Your task to perform on an android device: Clear the shopping cart on costco.com. Add razer huntsman to the cart on costco.com Image 0: 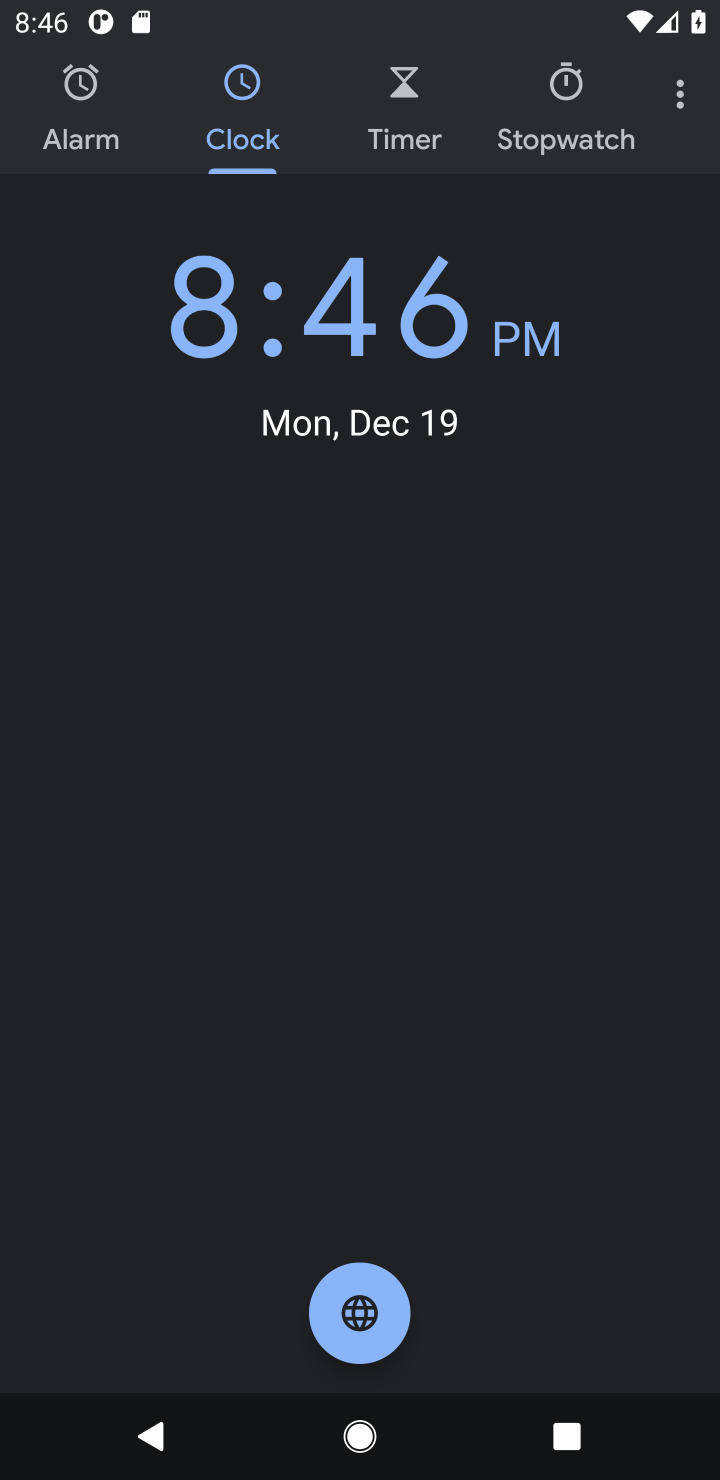
Step 0: press home button
Your task to perform on an android device: Clear the shopping cart on costco.com. Add razer huntsman to the cart on costco.com Image 1: 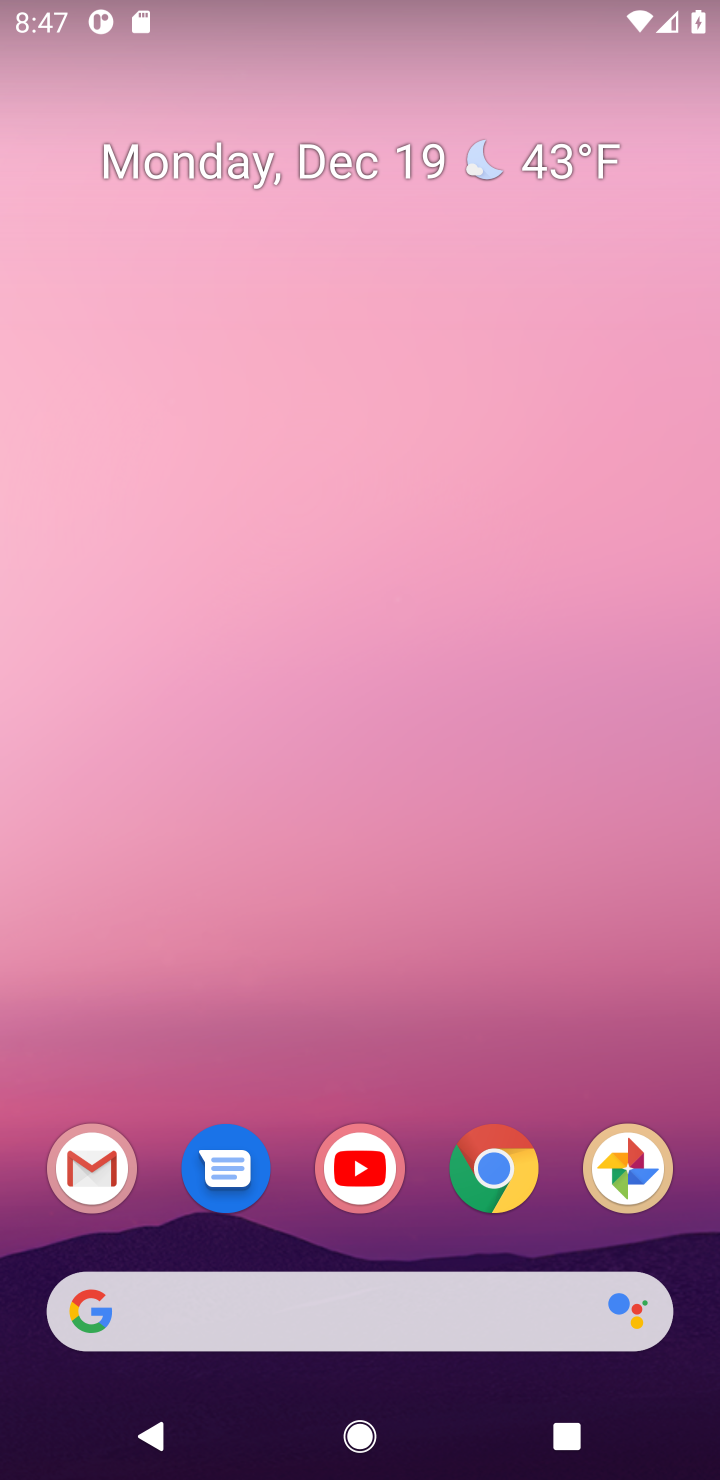
Step 1: click (494, 1171)
Your task to perform on an android device: Clear the shopping cart on costco.com. Add razer huntsman to the cart on costco.com Image 2: 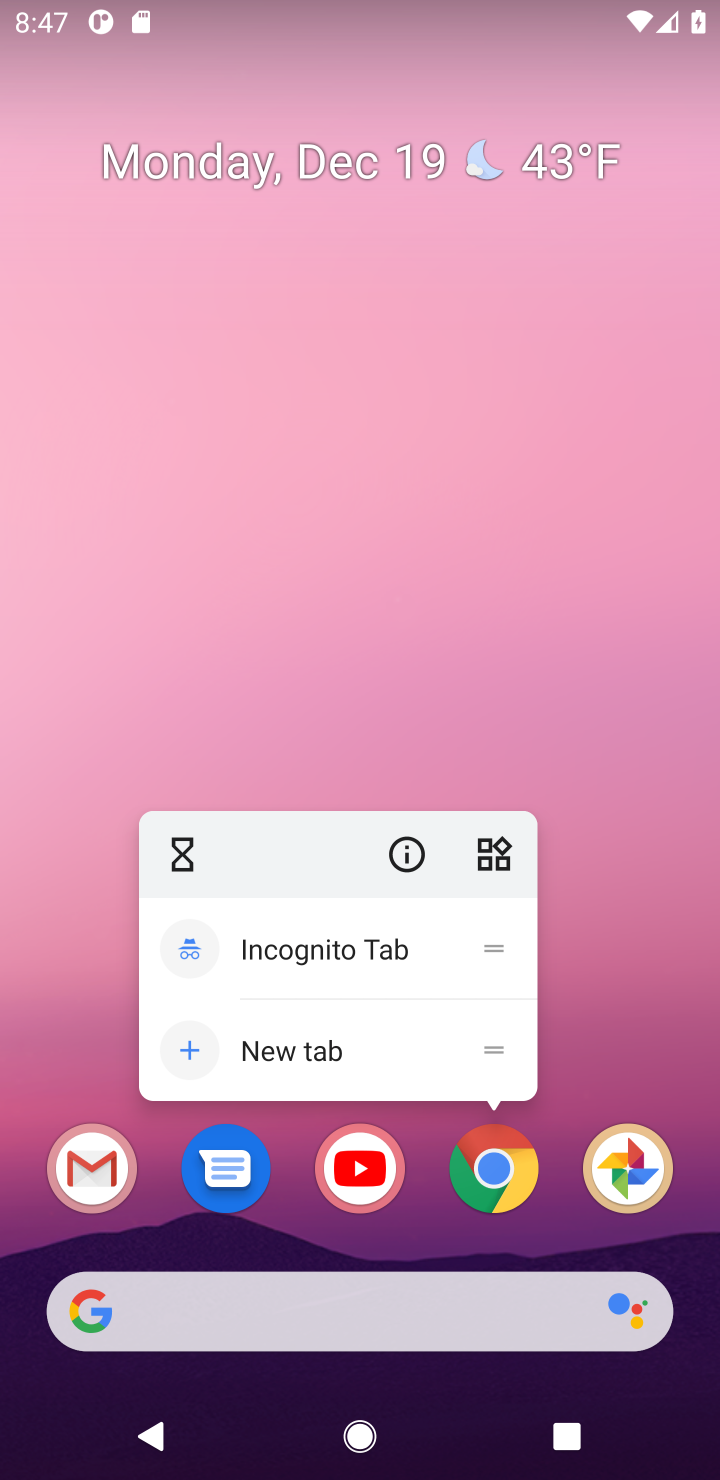
Step 2: click (494, 1171)
Your task to perform on an android device: Clear the shopping cart on costco.com. Add razer huntsman to the cart on costco.com Image 3: 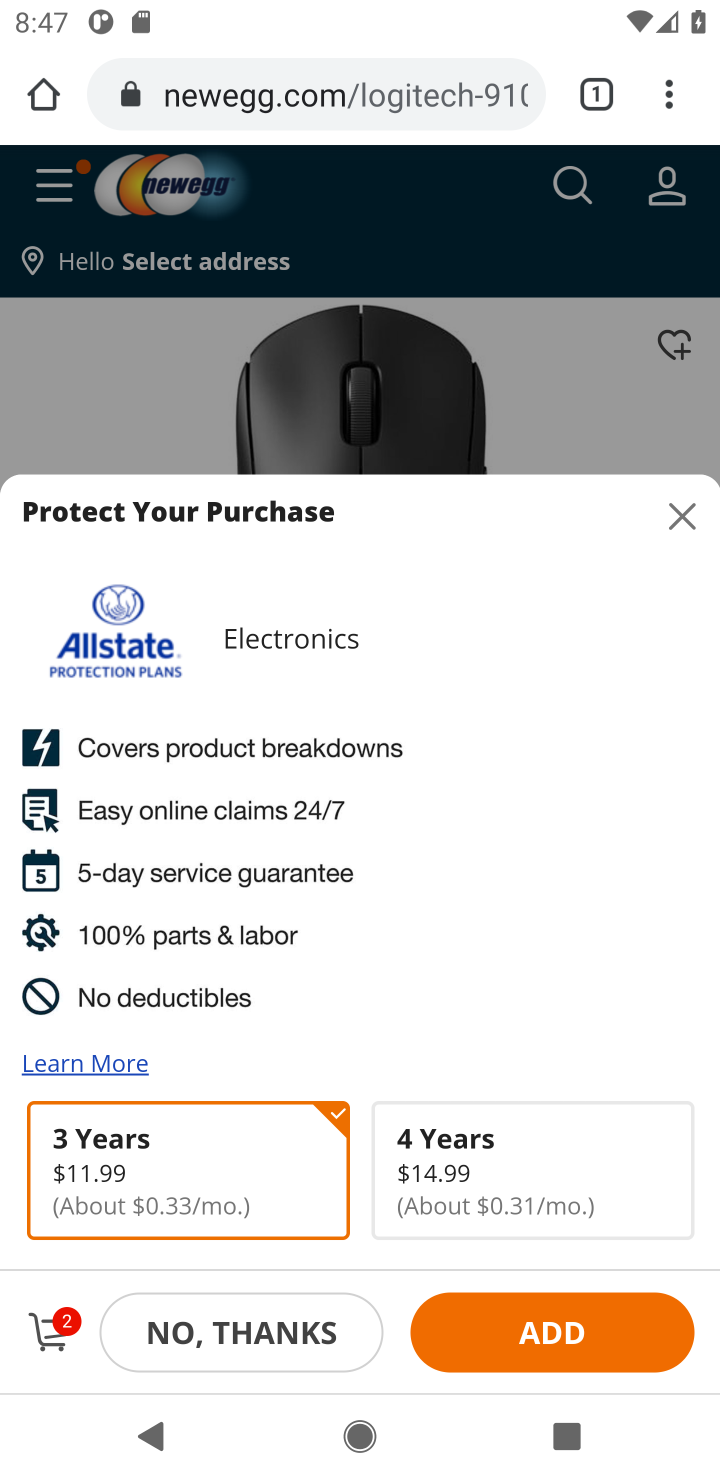
Step 3: click (276, 90)
Your task to perform on an android device: Clear the shopping cart on costco.com. Add razer huntsman to the cart on costco.com Image 4: 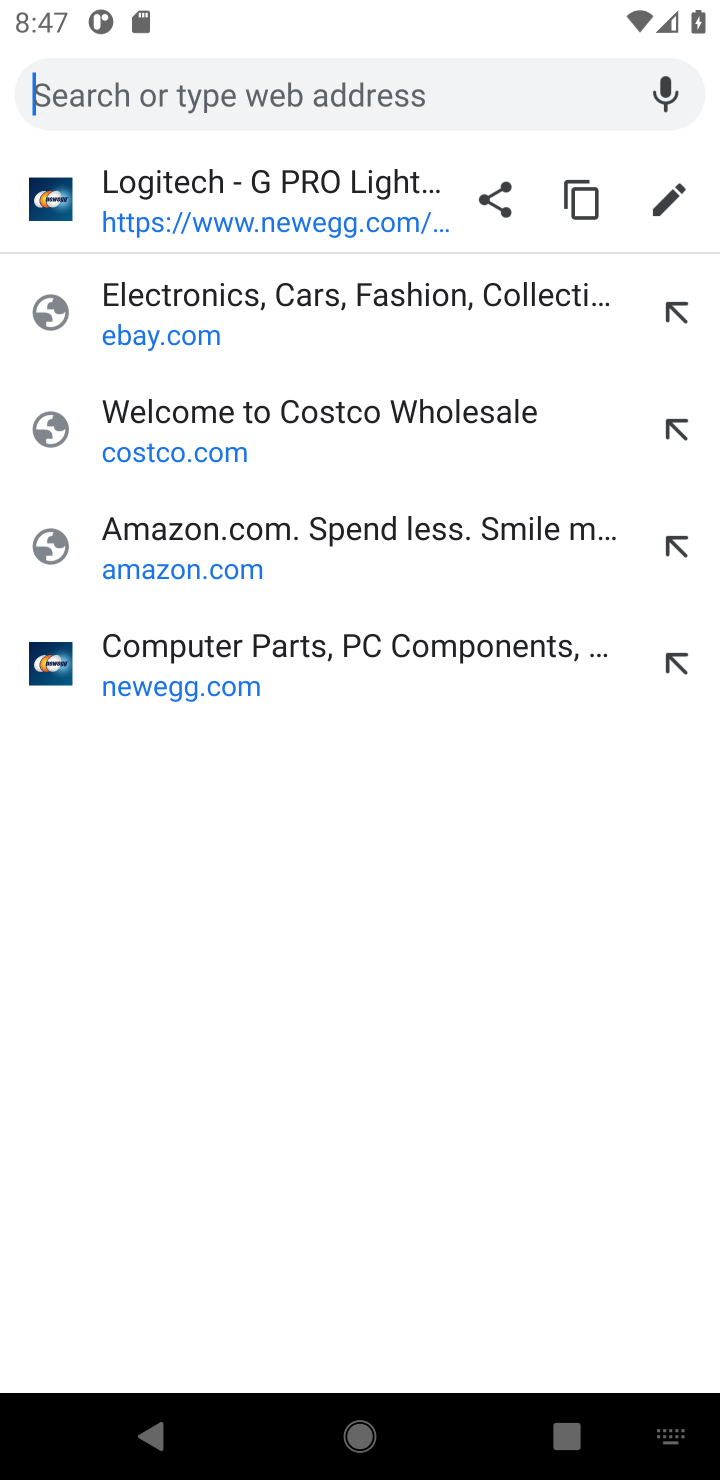
Step 4: click (131, 424)
Your task to perform on an android device: Clear the shopping cart on costco.com. Add razer huntsman to the cart on costco.com Image 5: 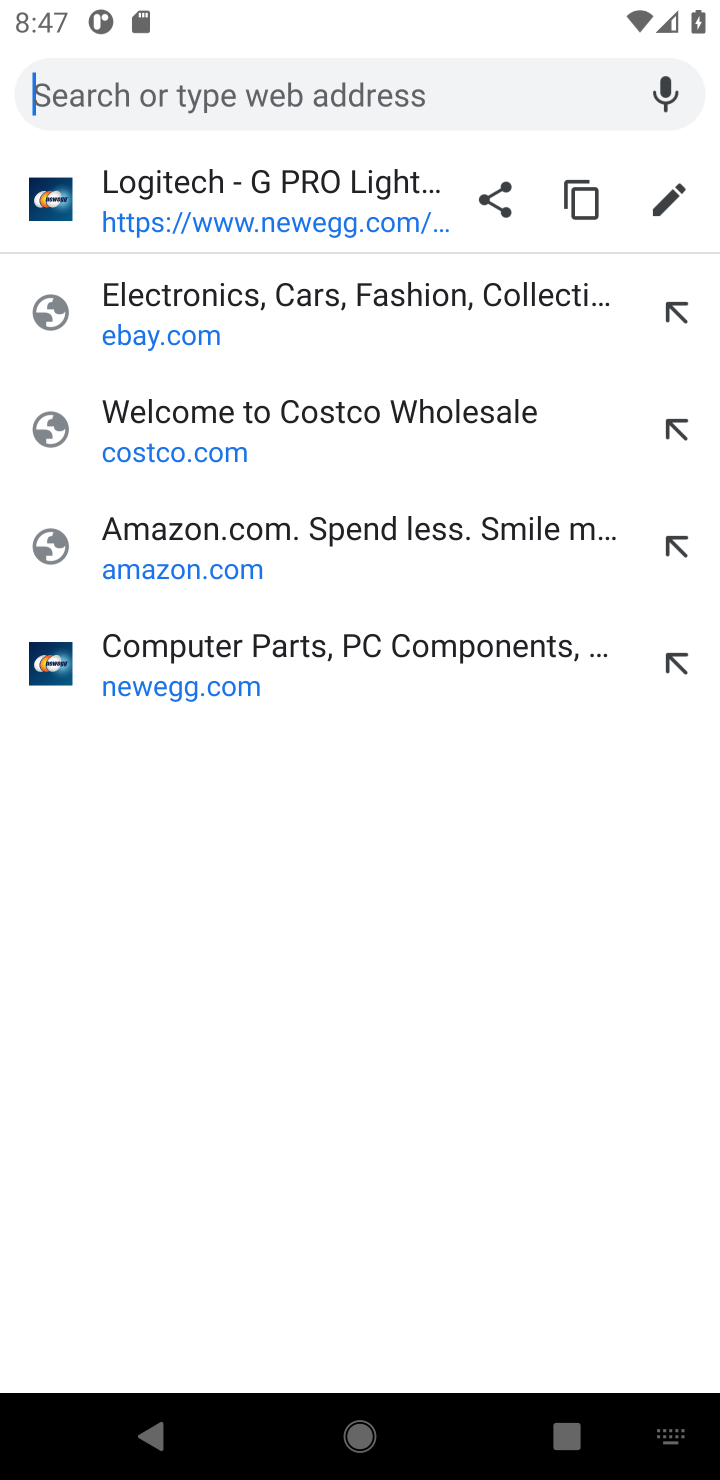
Step 5: click (131, 424)
Your task to perform on an android device: Clear the shopping cart on costco.com. Add razer huntsman to the cart on costco.com Image 6: 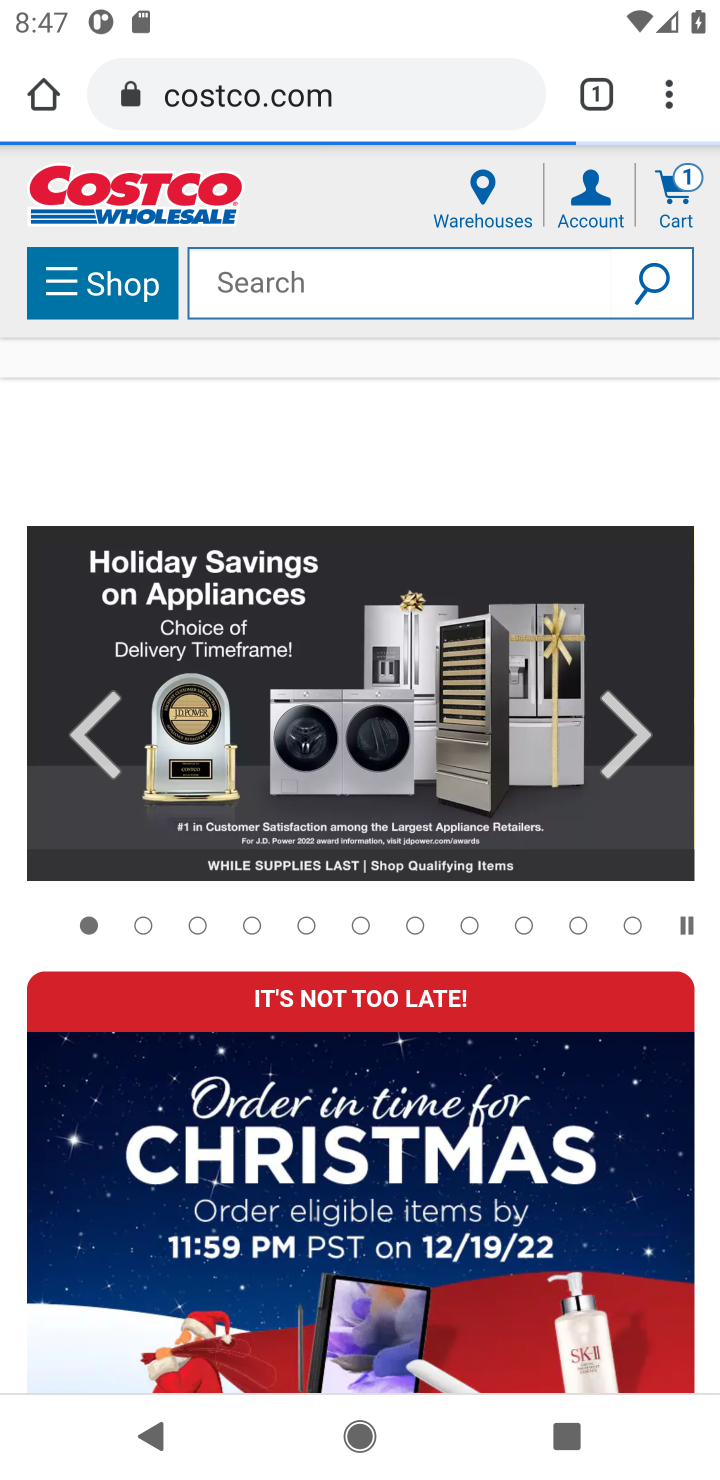
Step 6: click (684, 210)
Your task to perform on an android device: Clear the shopping cart on costco.com. Add razer huntsman to the cart on costco.com Image 7: 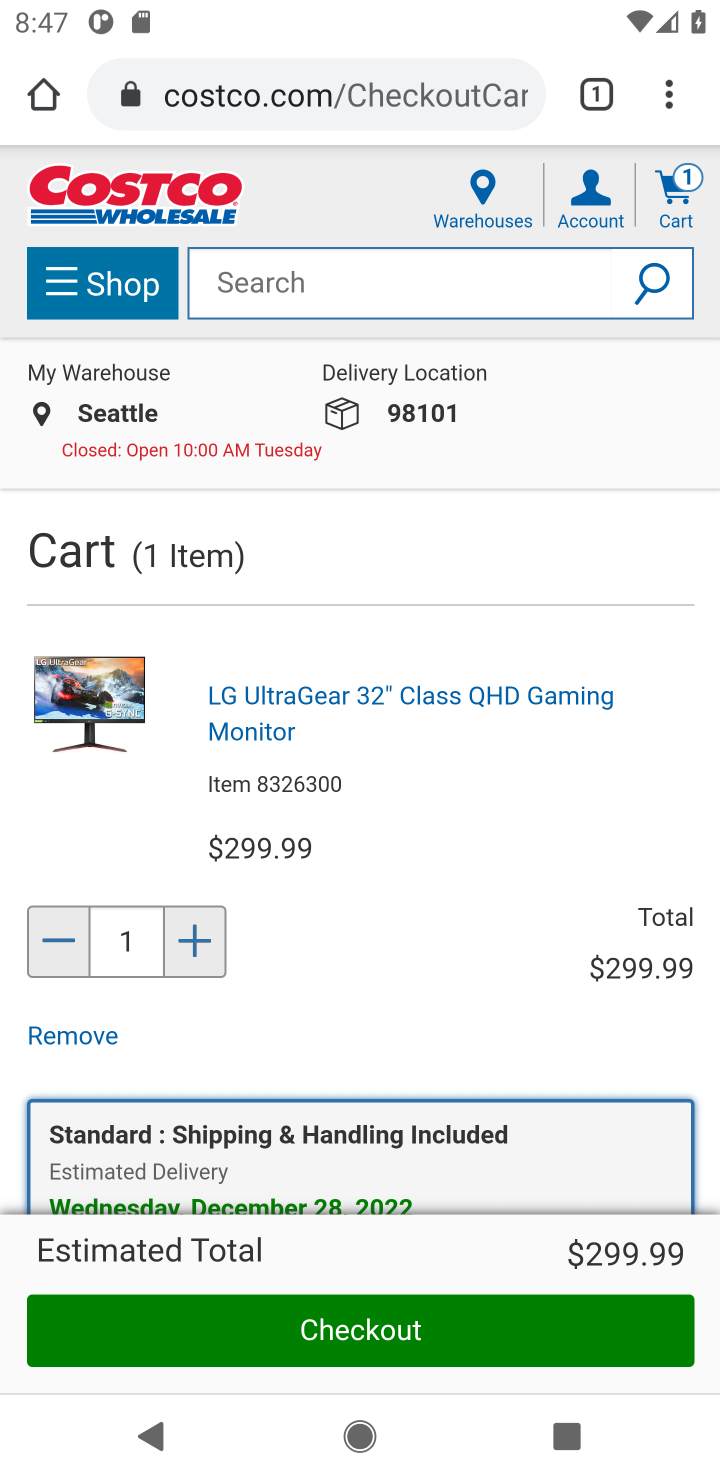
Step 7: drag from (445, 835) to (424, 395)
Your task to perform on an android device: Clear the shopping cart on costco.com. Add razer huntsman to the cart on costco.com Image 8: 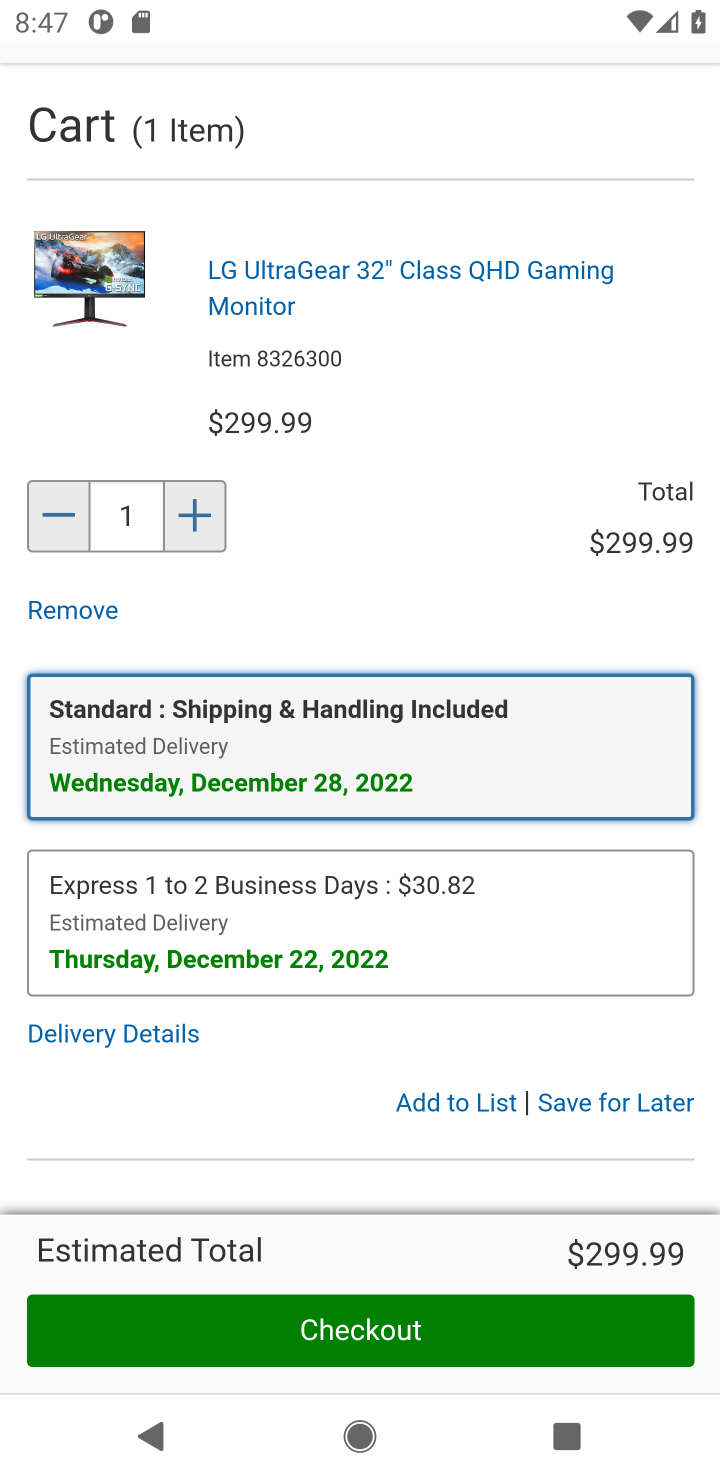
Step 8: click (601, 1102)
Your task to perform on an android device: Clear the shopping cart on costco.com. Add razer huntsman to the cart on costco.com Image 9: 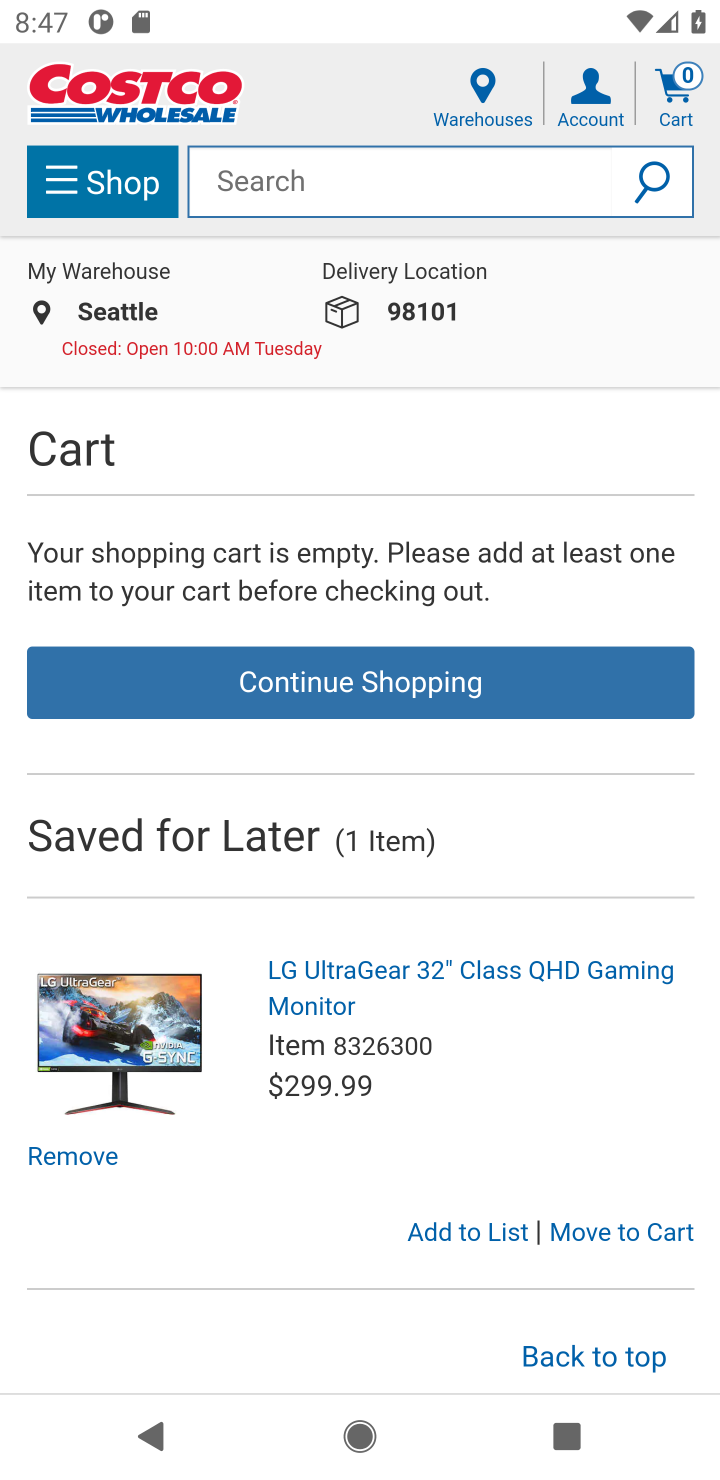
Step 9: click (279, 189)
Your task to perform on an android device: Clear the shopping cart on costco.com. Add razer huntsman to the cart on costco.com Image 10: 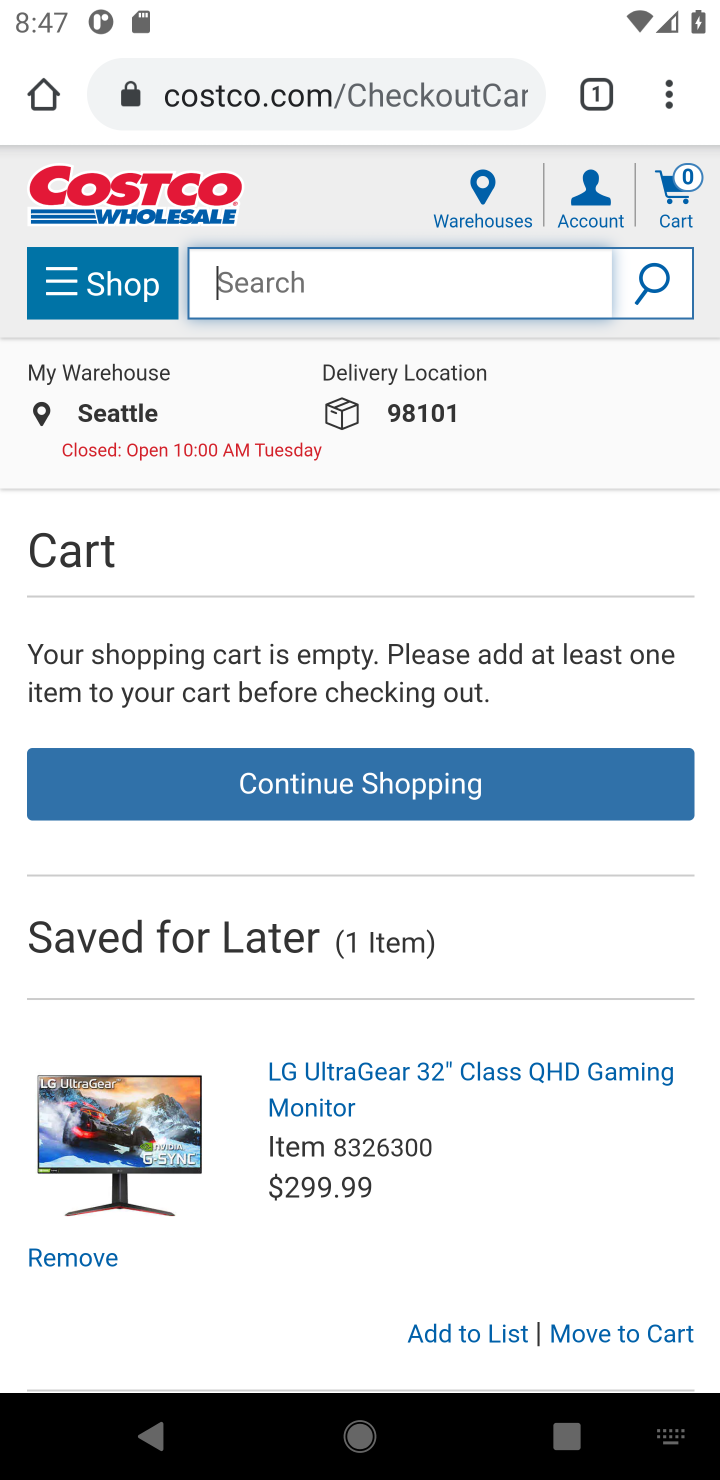
Step 10: type "razer huntsman"
Your task to perform on an android device: Clear the shopping cart on costco.com. Add razer huntsman to the cart on costco.com Image 11: 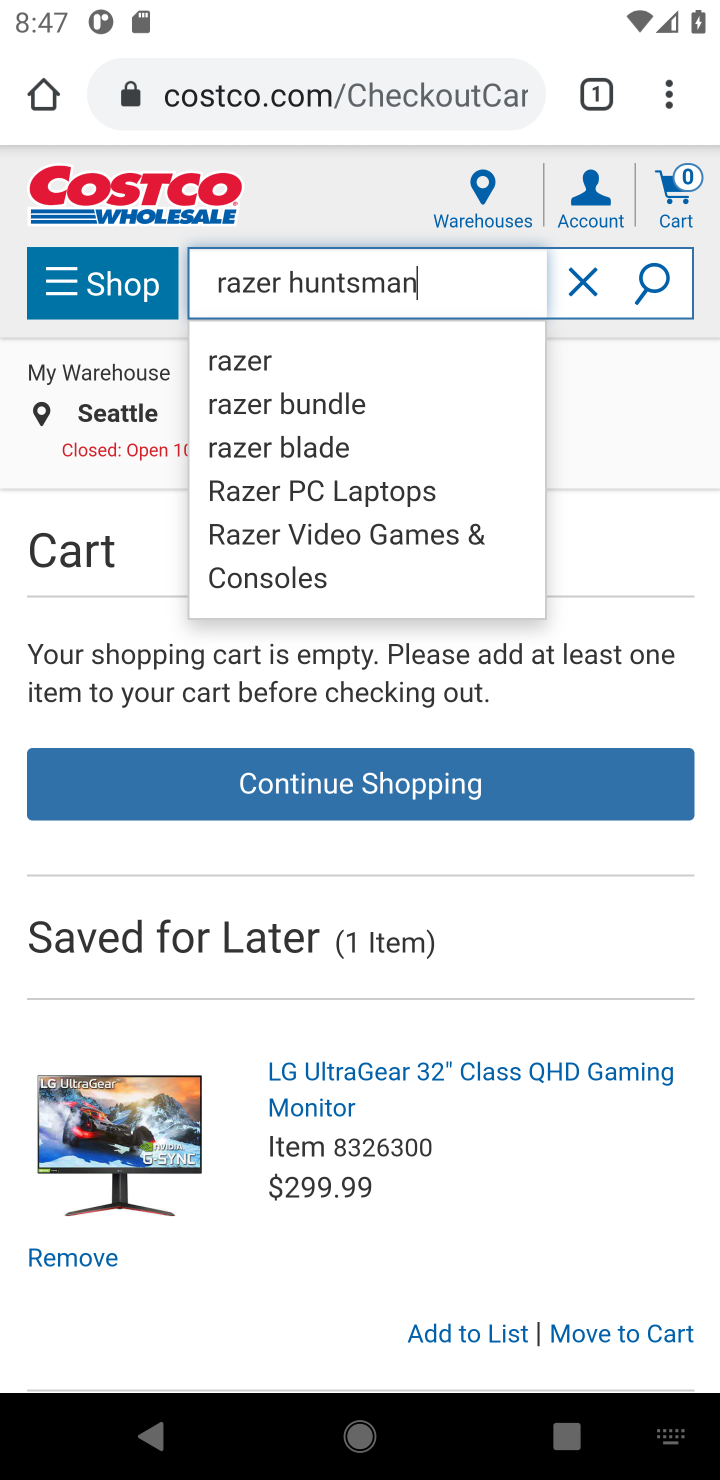
Step 11: click (668, 296)
Your task to perform on an android device: Clear the shopping cart on costco.com. Add razer huntsman to the cart on costco.com Image 12: 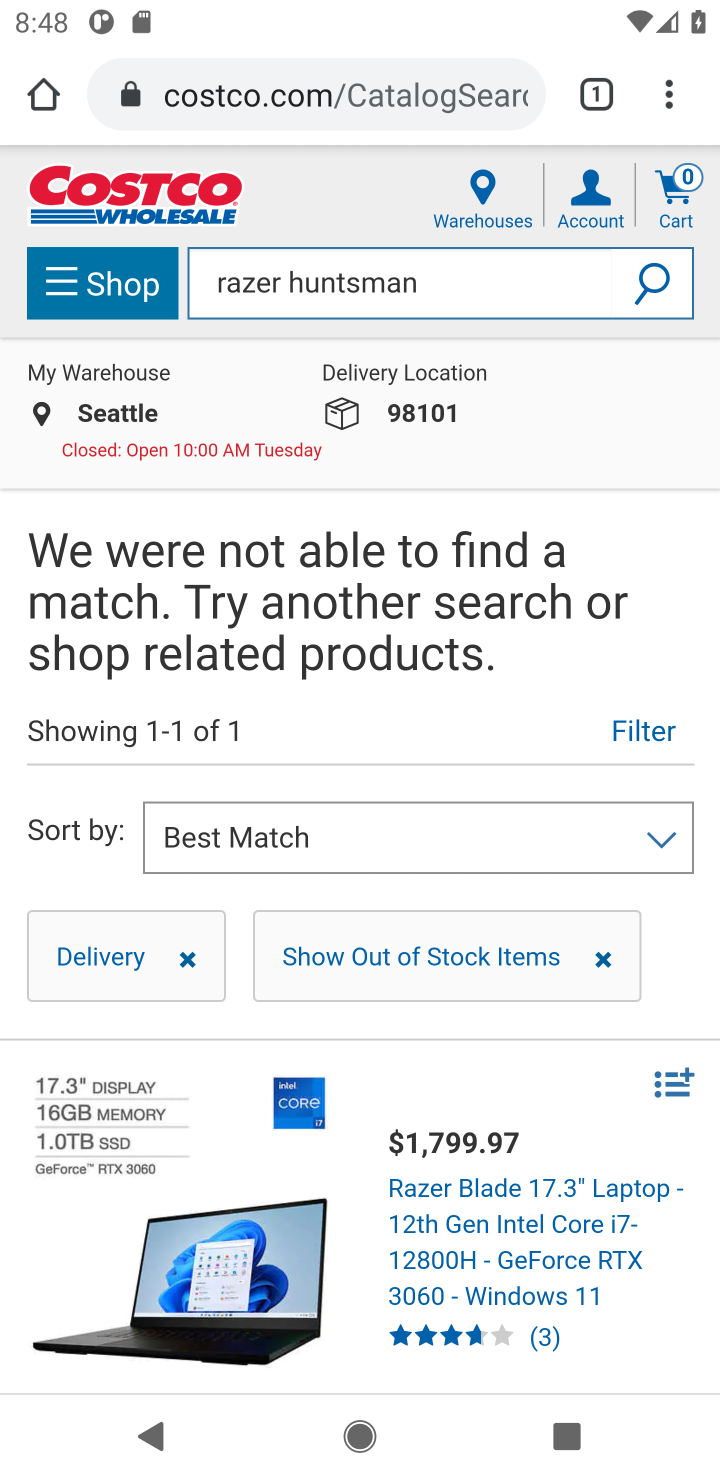
Step 12: task complete